Your task to perform on an android device: clear all cookies in the chrome app Image 0: 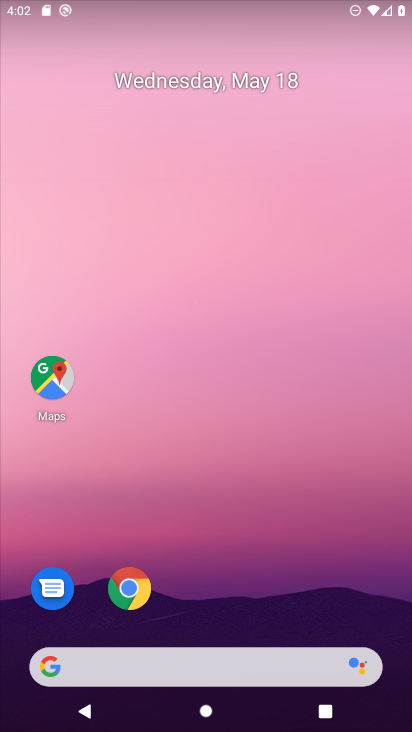
Step 0: click (131, 579)
Your task to perform on an android device: clear all cookies in the chrome app Image 1: 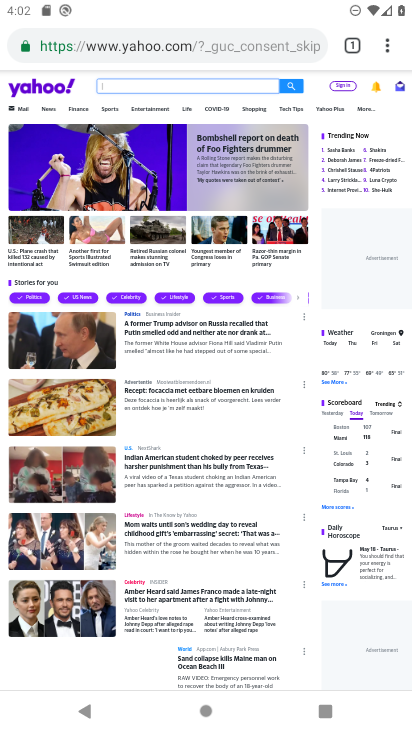
Step 1: click (383, 54)
Your task to perform on an android device: clear all cookies in the chrome app Image 2: 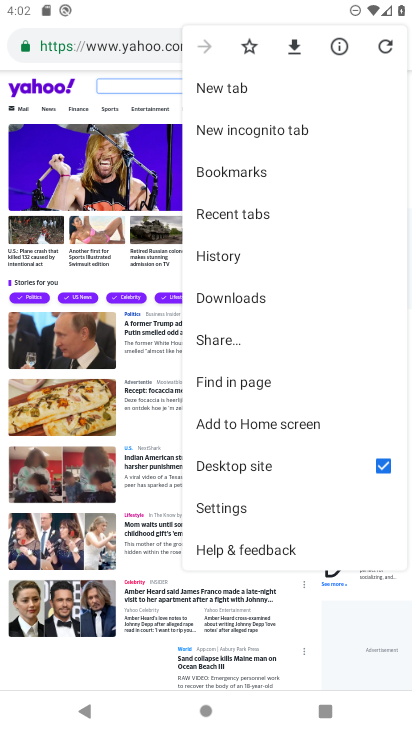
Step 2: click (227, 500)
Your task to perform on an android device: clear all cookies in the chrome app Image 3: 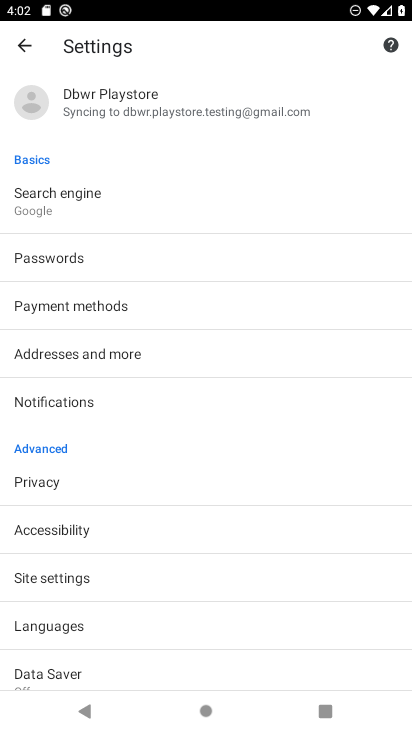
Step 3: click (155, 590)
Your task to perform on an android device: clear all cookies in the chrome app Image 4: 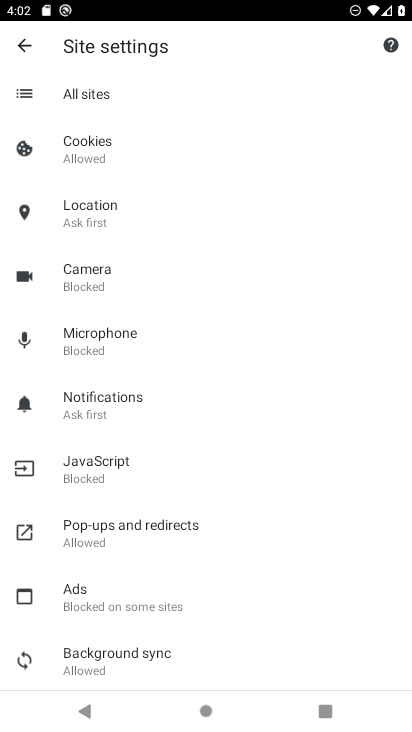
Step 4: click (25, 42)
Your task to perform on an android device: clear all cookies in the chrome app Image 5: 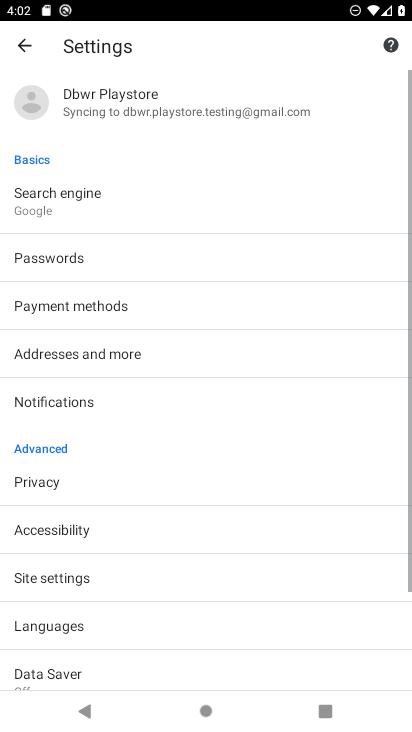
Step 5: click (25, 42)
Your task to perform on an android device: clear all cookies in the chrome app Image 6: 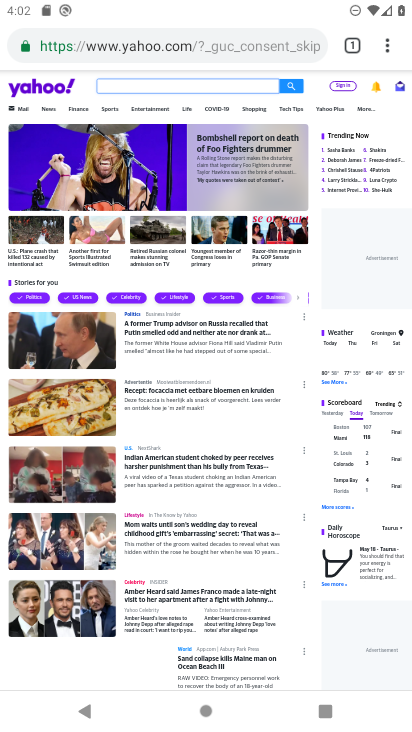
Step 6: click (393, 62)
Your task to perform on an android device: clear all cookies in the chrome app Image 7: 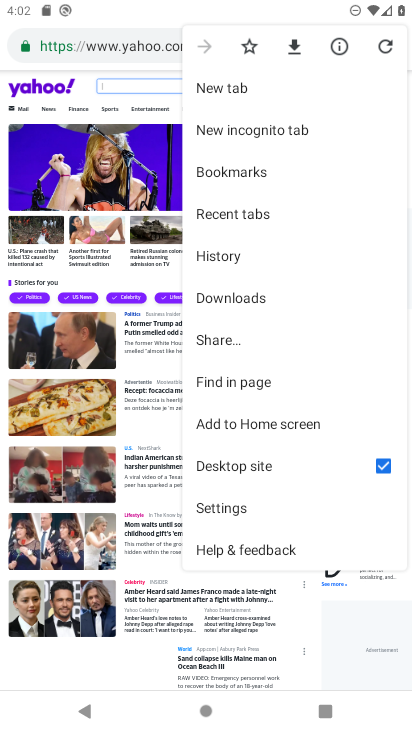
Step 7: click (236, 261)
Your task to perform on an android device: clear all cookies in the chrome app Image 8: 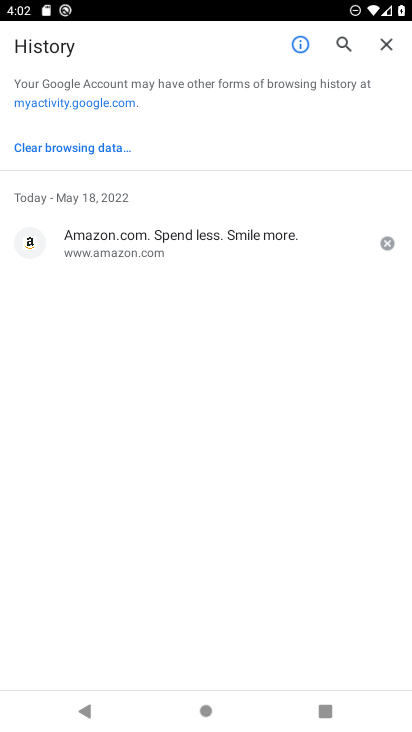
Step 8: click (80, 159)
Your task to perform on an android device: clear all cookies in the chrome app Image 9: 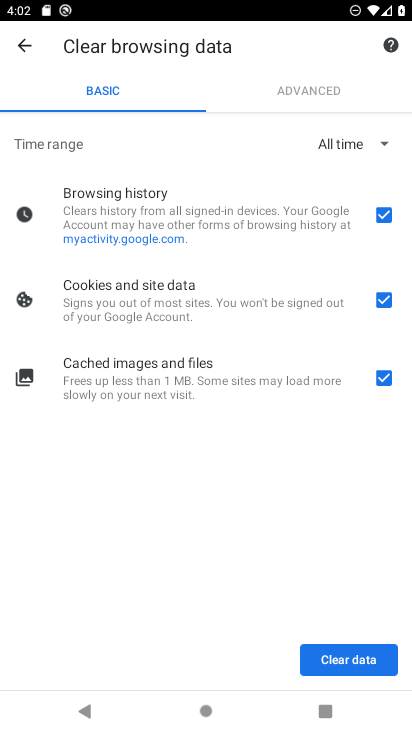
Step 9: click (333, 211)
Your task to perform on an android device: clear all cookies in the chrome app Image 10: 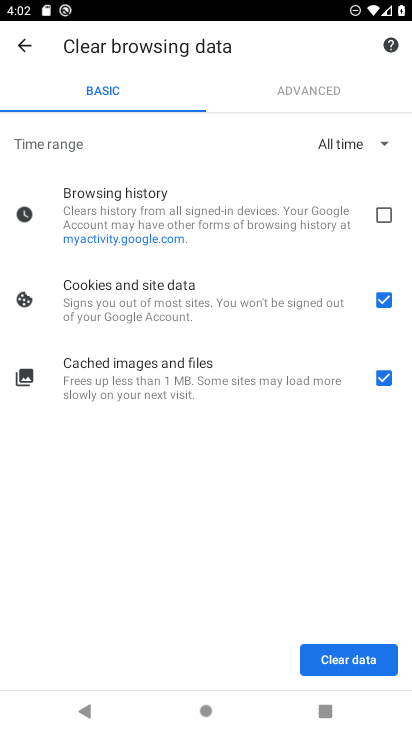
Step 10: click (368, 369)
Your task to perform on an android device: clear all cookies in the chrome app Image 11: 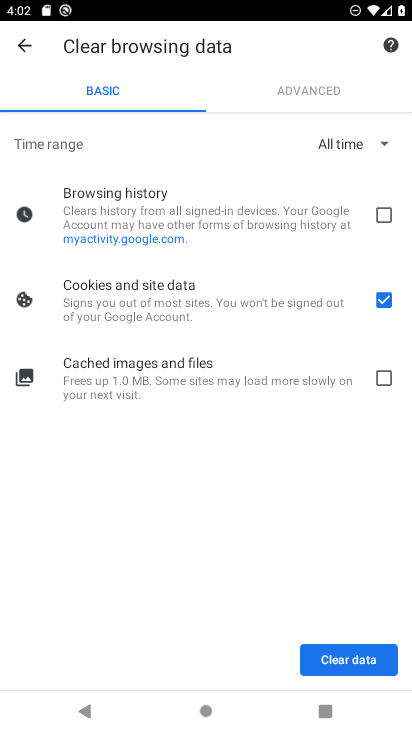
Step 11: click (369, 667)
Your task to perform on an android device: clear all cookies in the chrome app Image 12: 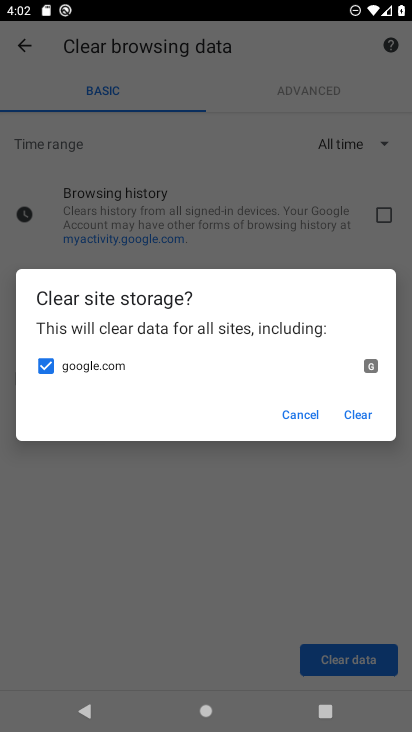
Step 12: click (357, 405)
Your task to perform on an android device: clear all cookies in the chrome app Image 13: 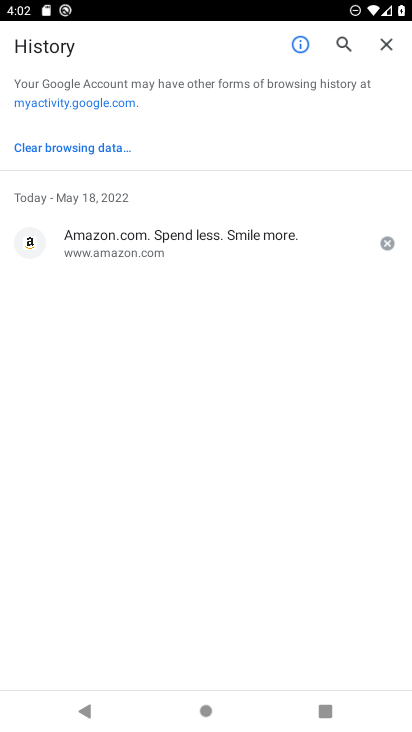
Step 13: task complete